Your task to perform on an android device: Go to Yahoo.com Image 0: 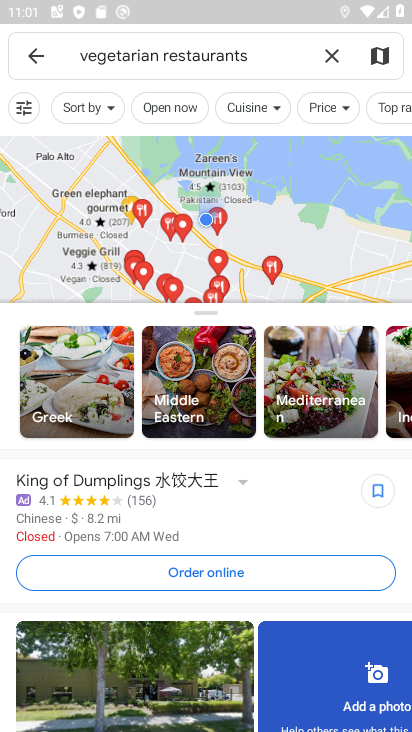
Step 0: press home button
Your task to perform on an android device: Go to Yahoo.com Image 1: 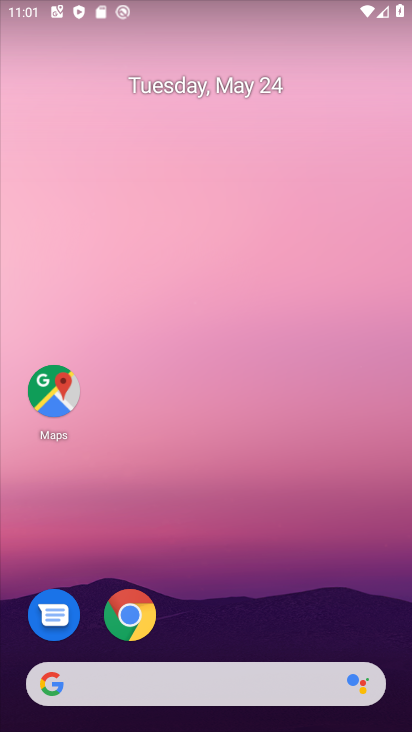
Step 1: click (117, 618)
Your task to perform on an android device: Go to Yahoo.com Image 2: 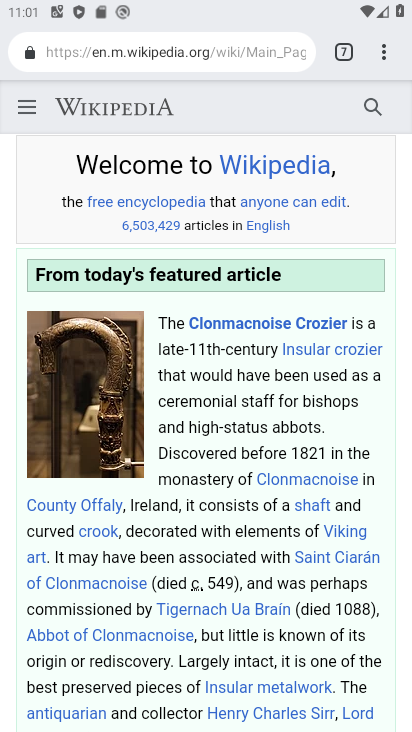
Step 2: click (337, 49)
Your task to perform on an android device: Go to Yahoo.com Image 3: 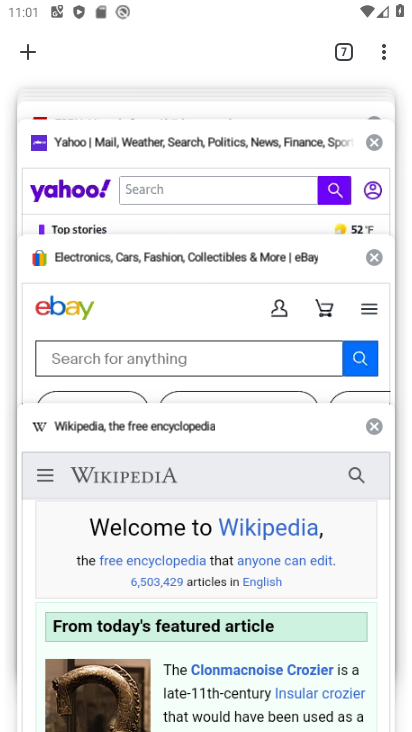
Step 3: click (266, 202)
Your task to perform on an android device: Go to Yahoo.com Image 4: 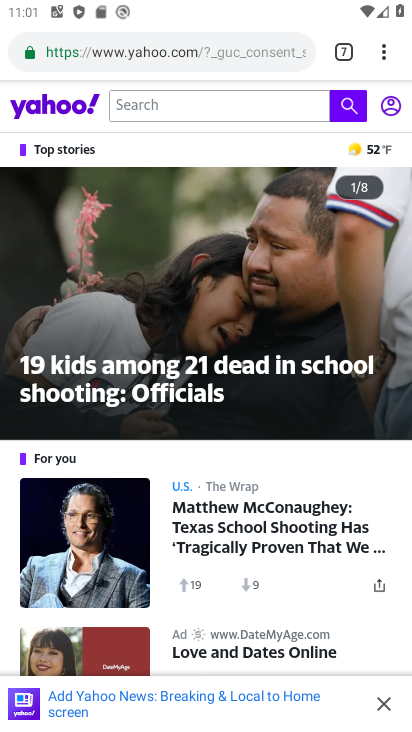
Step 4: task complete